Your task to perform on an android device: Open the map Image 0: 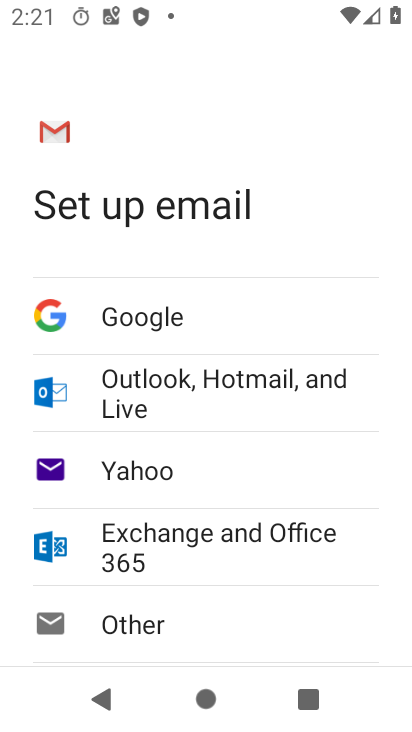
Step 0: press home button
Your task to perform on an android device: Open the map Image 1: 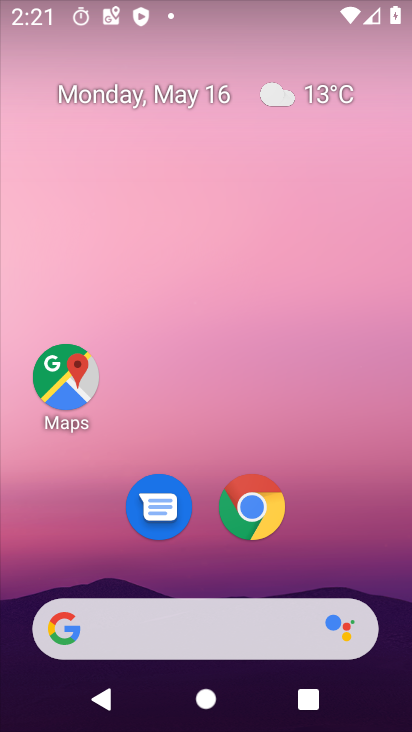
Step 1: drag from (373, 547) to (350, 151)
Your task to perform on an android device: Open the map Image 2: 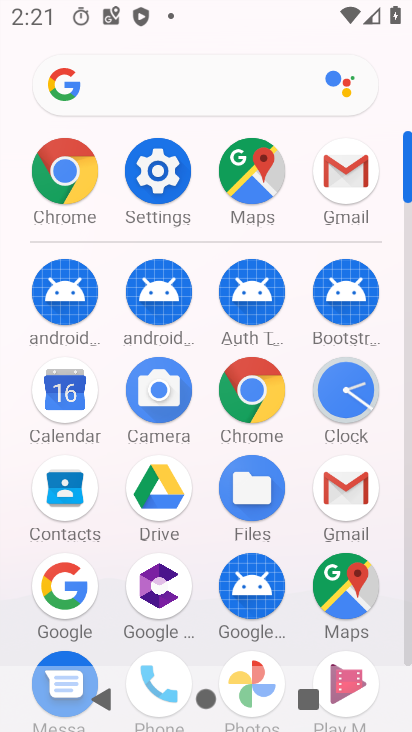
Step 2: click (355, 592)
Your task to perform on an android device: Open the map Image 3: 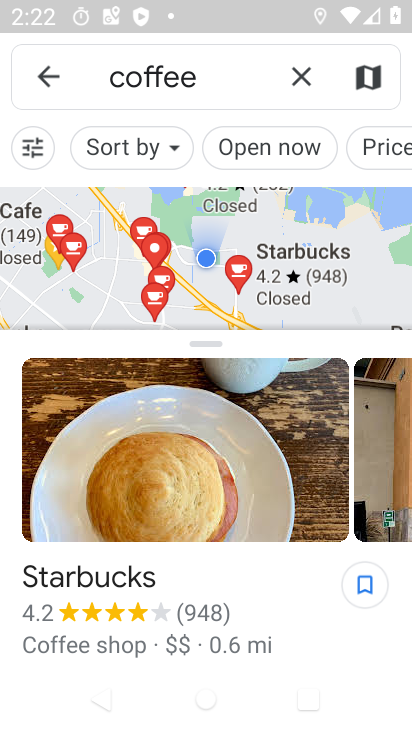
Step 3: task complete